Your task to perform on an android device: open app "Google Maps" Image 0: 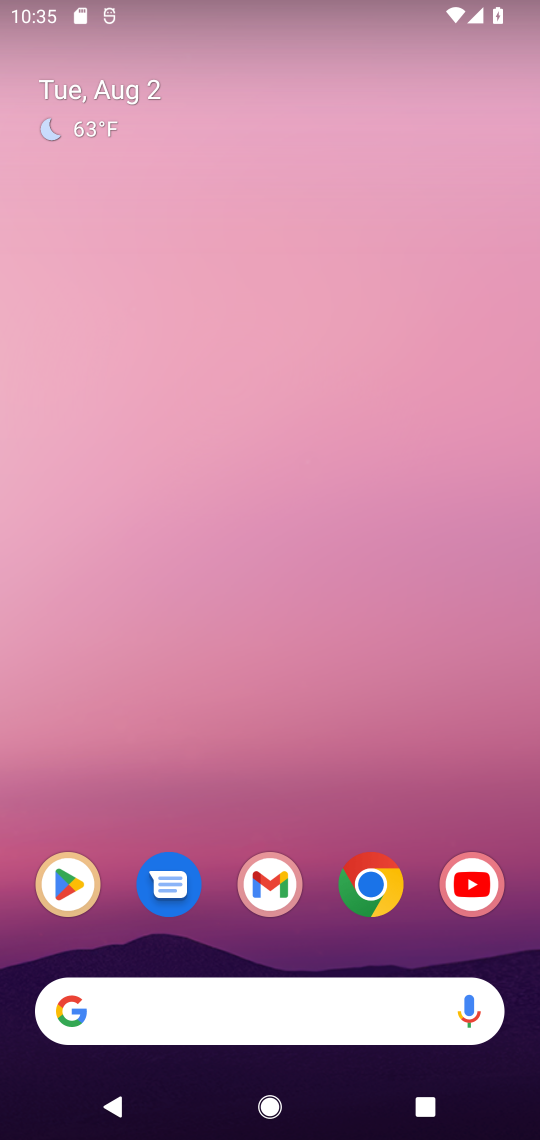
Step 0: click (86, 896)
Your task to perform on an android device: open app "Google Maps" Image 1: 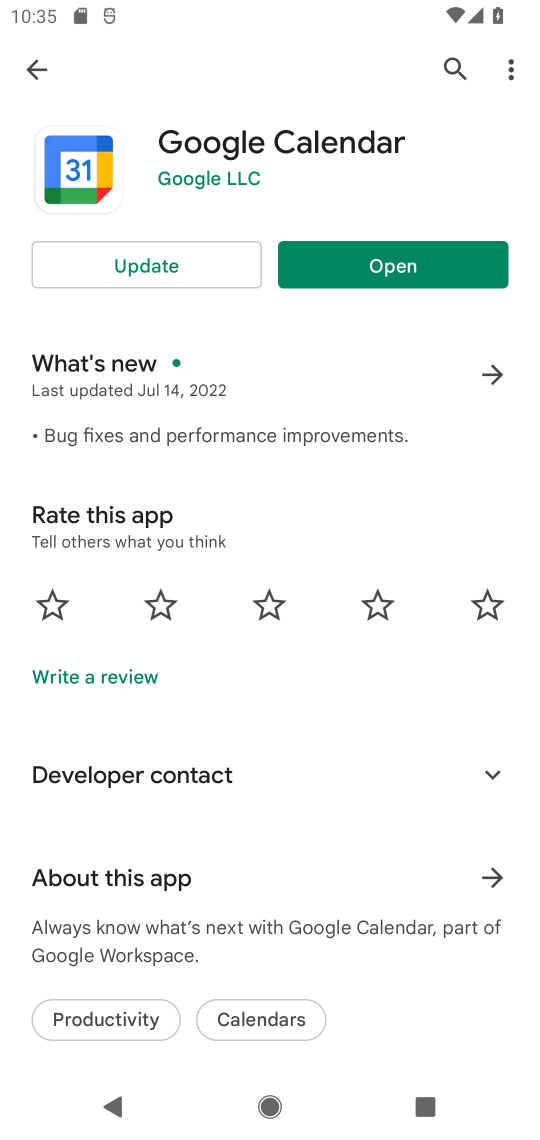
Step 1: click (25, 72)
Your task to perform on an android device: open app "Google Maps" Image 2: 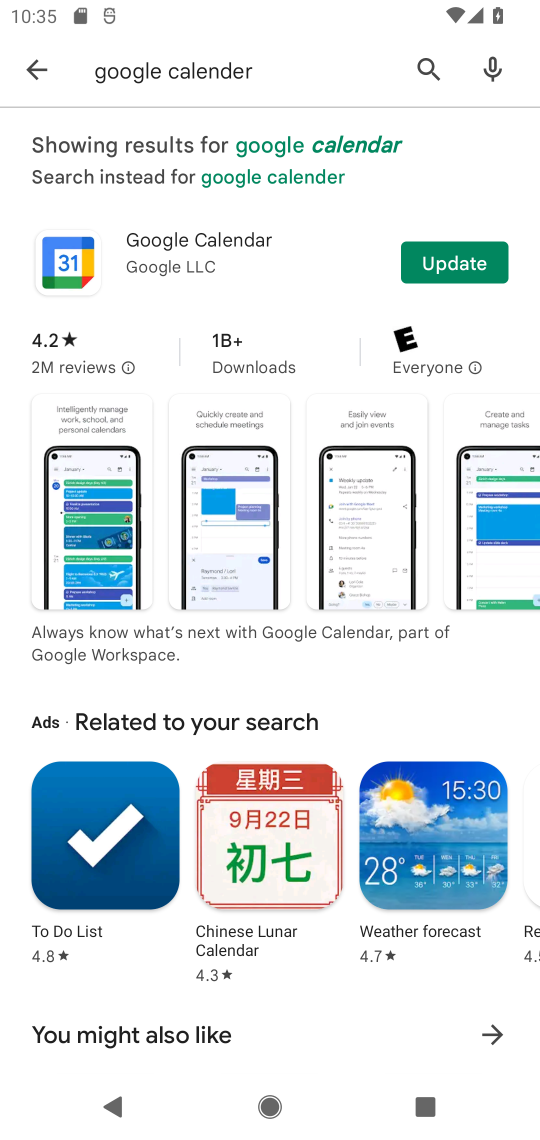
Step 2: click (180, 78)
Your task to perform on an android device: open app "Google Maps" Image 3: 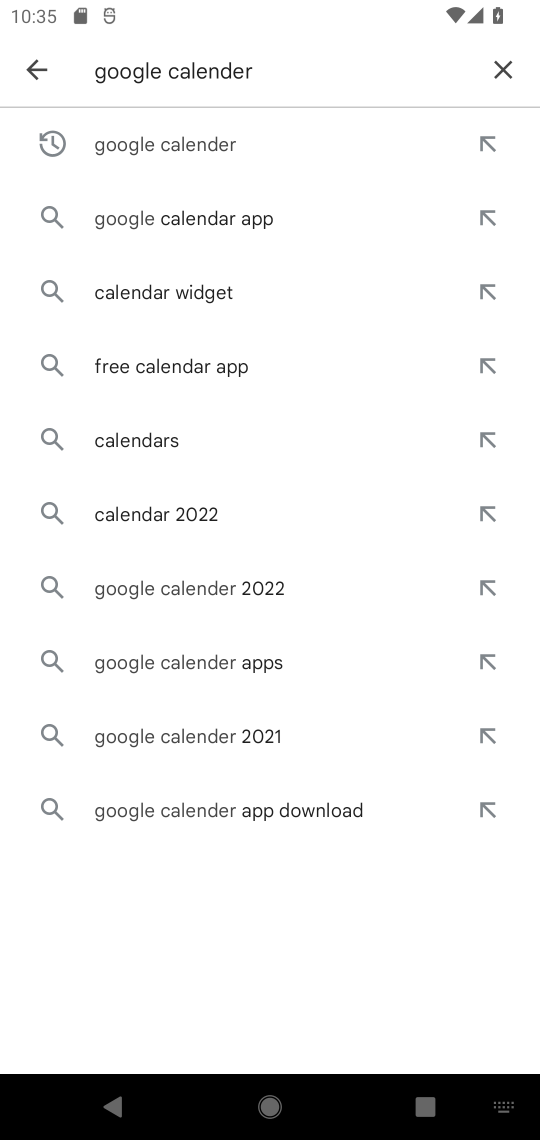
Step 3: click (502, 68)
Your task to perform on an android device: open app "Google Maps" Image 4: 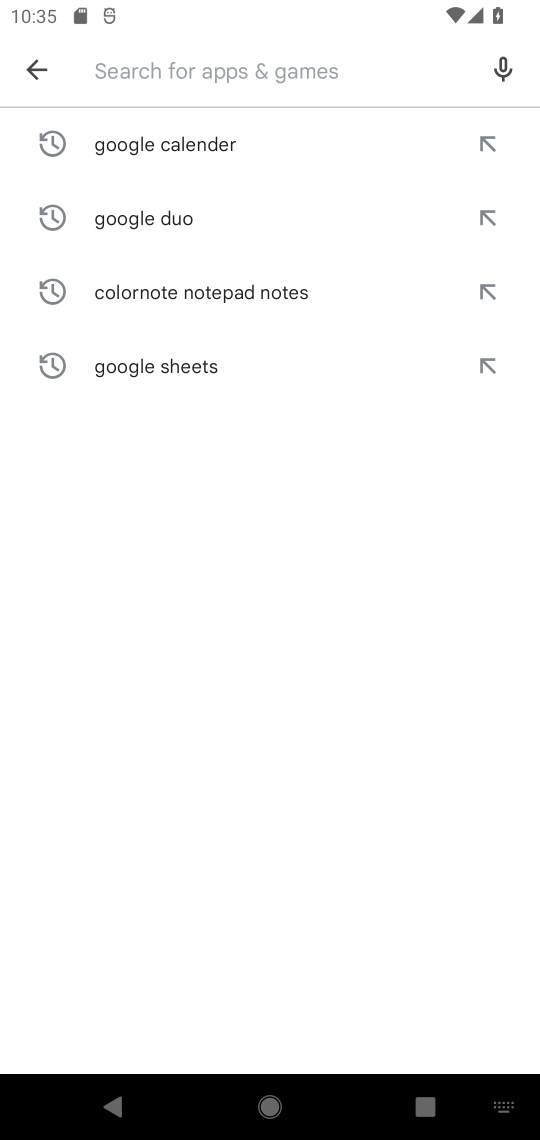
Step 4: type "google maps"
Your task to perform on an android device: open app "Google Maps" Image 5: 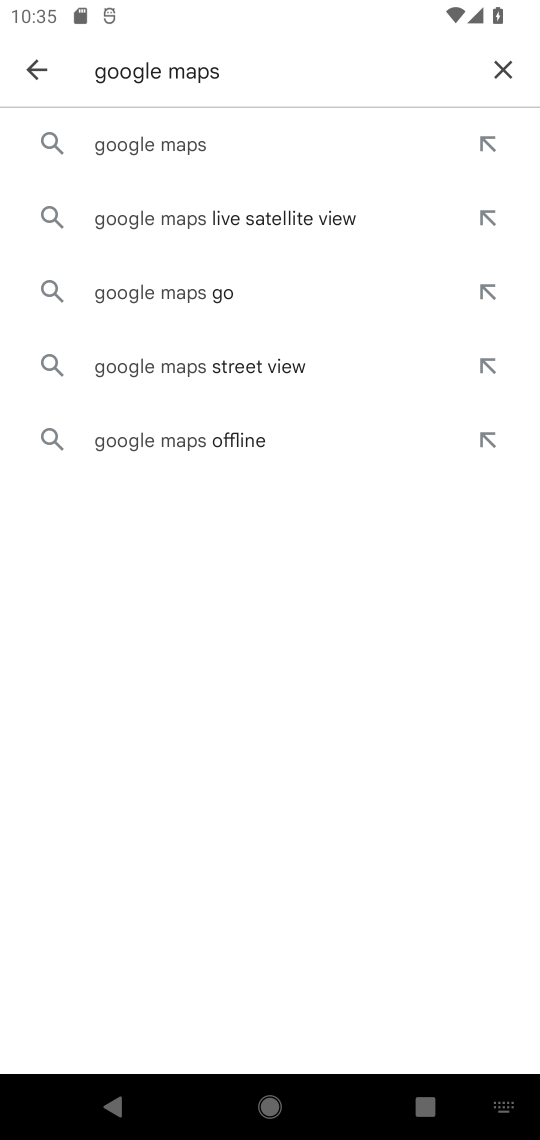
Step 5: click (199, 141)
Your task to perform on an android device: open app "Google Maps" Image 6: 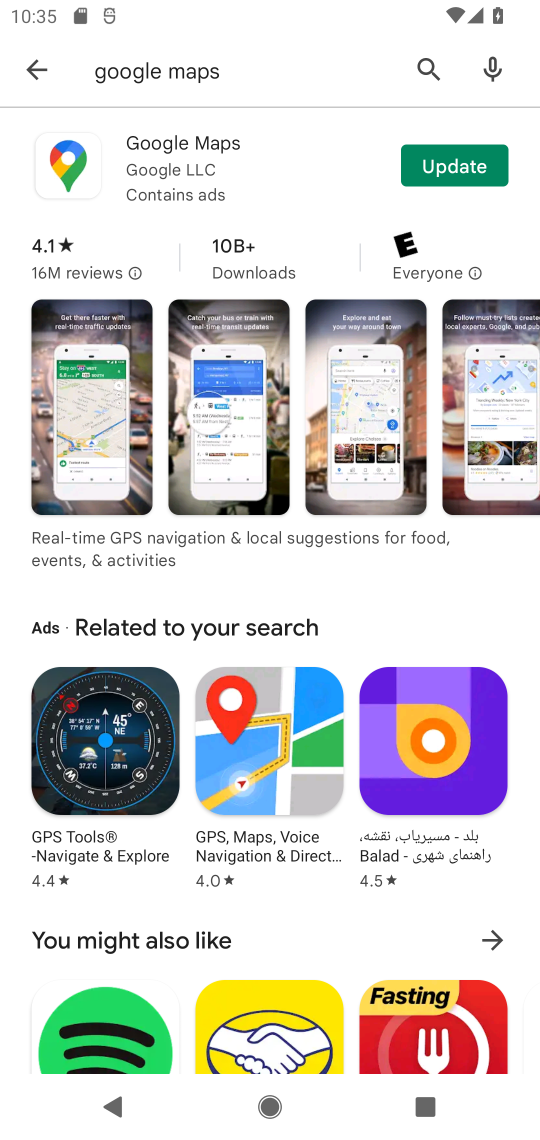
Step 6: click (200, 162)
Your task to perform on an android device: open app "Google Maps" Image 7: 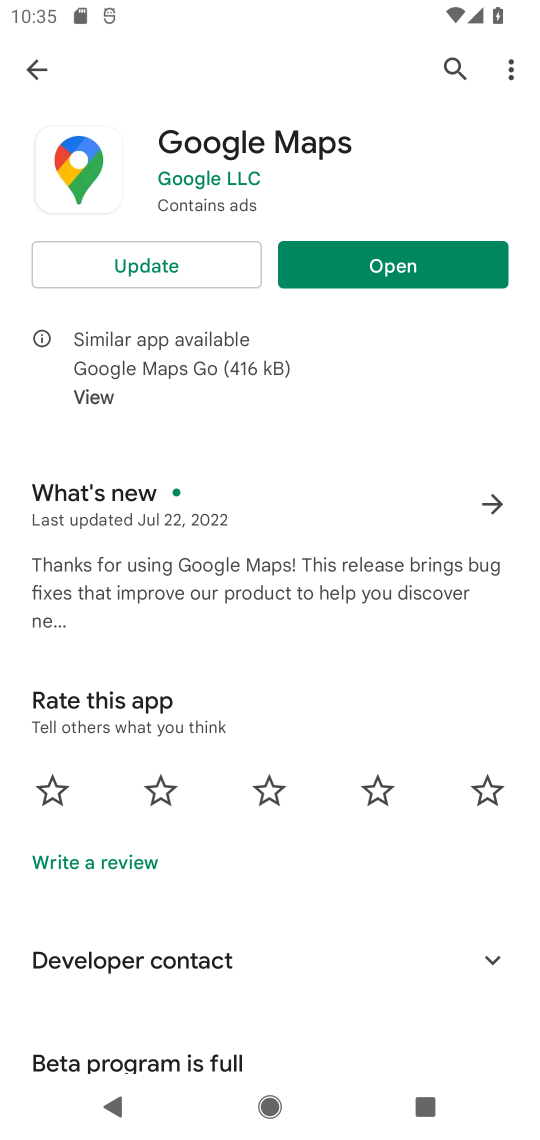
Step 7: click (380, 267)
Your task to perform on an android device: open app "Google Maps" Image 8: 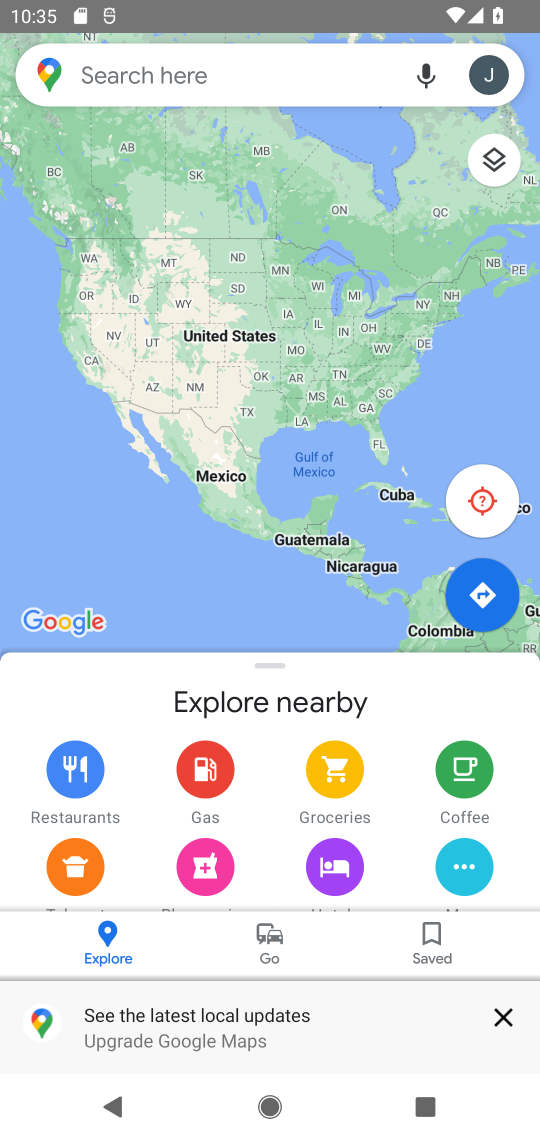
Step 8: click (505, 1008)
Your task to perform on an android device: open app "Google Maps" Image 9: 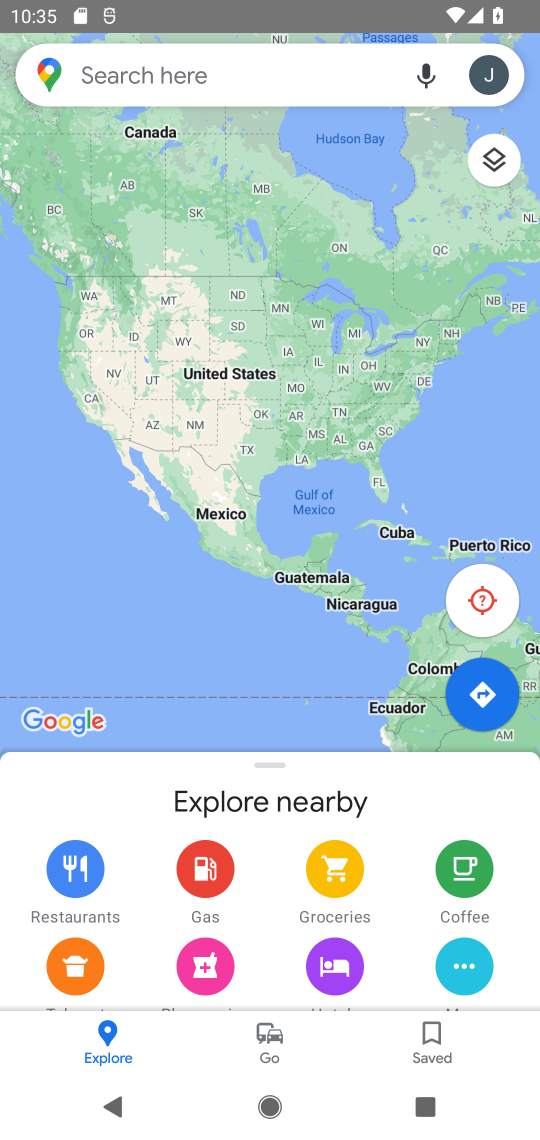
Step 9: task complete